Your task to perform on an android device: allow notifications from all sites in the chrome app Image 0: 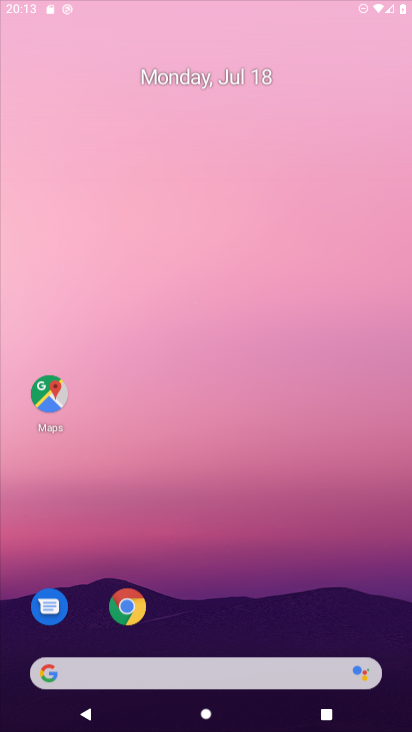
Step 0: drag from (222, 462) to (276, 107)
Your task to perform on an android device: allow notifications from all sites in the chrome app Image 1: 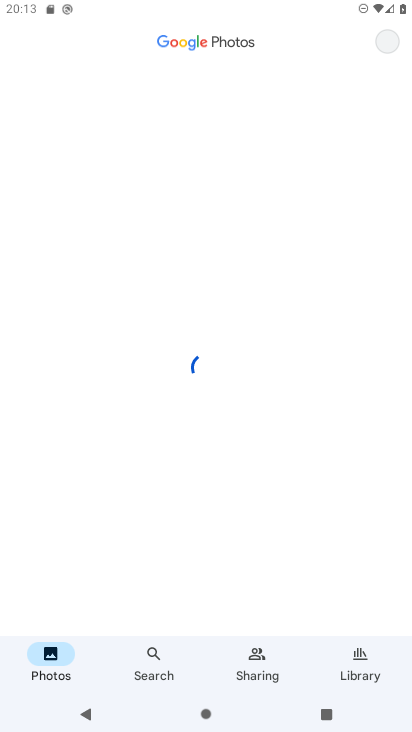
Step 1: press home button
Your task to perform on an android device: allow notifications from all sites in the chrome app Image 2: 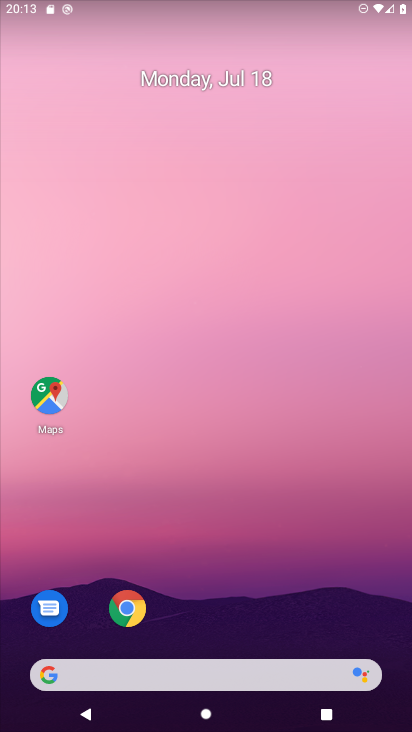
Step 2: click (132, 606)
Your task to perform on an android device: allow notifications from all sites in the chrome app Image 3: 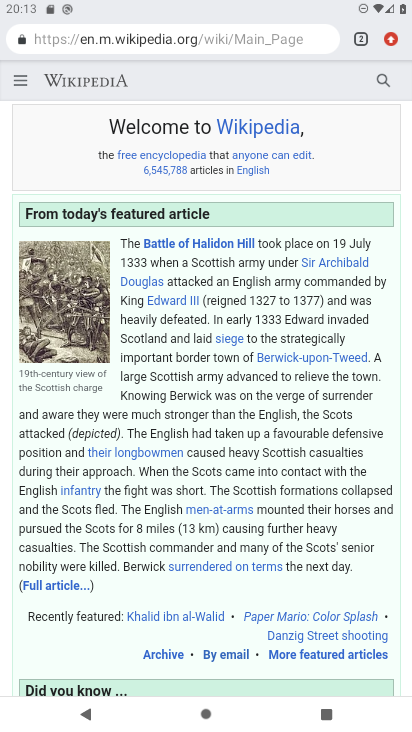
Step 3: click (389, 41)
Your task to perform on an android device: allow notifications from all sites in the chrome app Image 4: 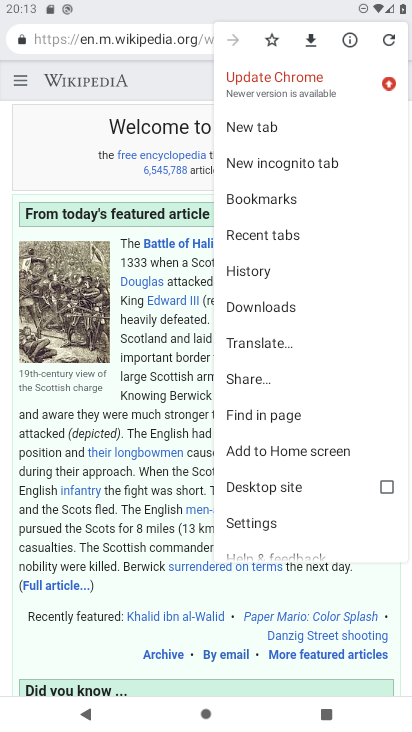
Step 4: click (257, 521)
Your task to perform on an android device: allow notifications from all sites in the chrome app Image 5: 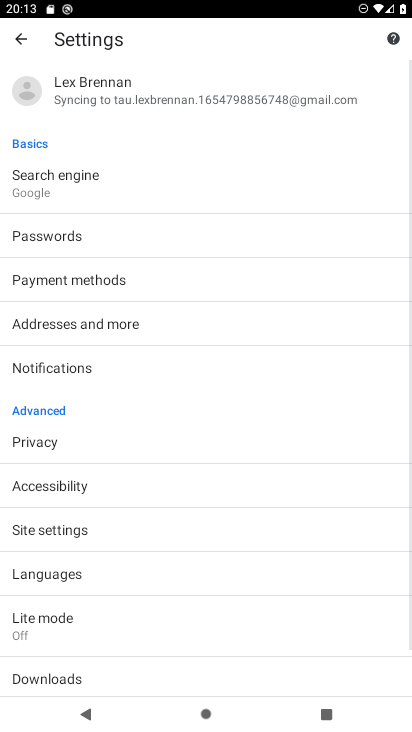
Step 5: click (58, 531)
Your task to perform on an android device: allow notifications from all sites in the chrome app Image 6: 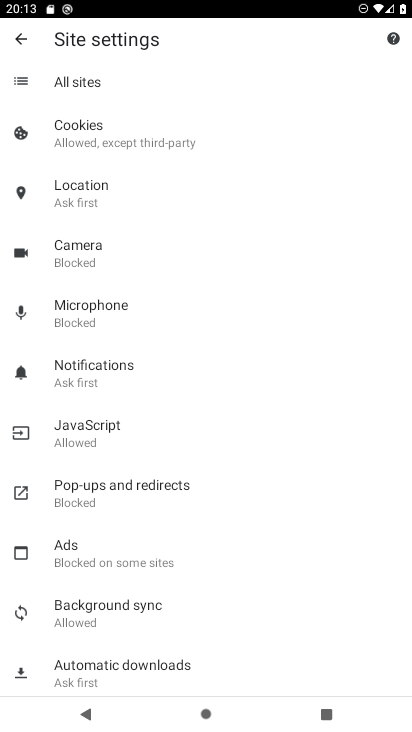
Step 6: click (97, 376)
Your task to perform on an android device: allow notifications from all sites in the chrome app Image 7: 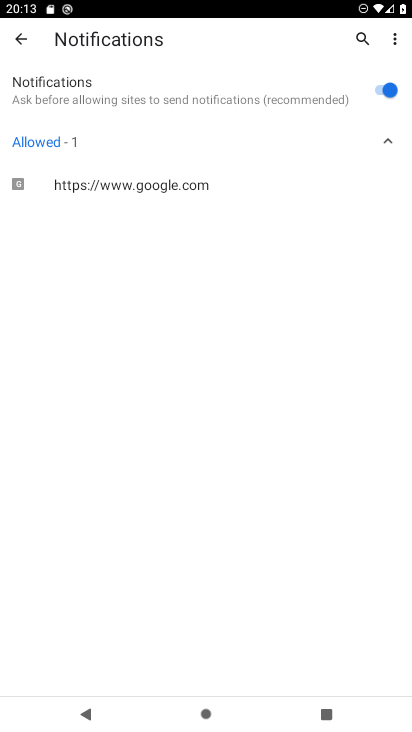
Step 7: task complete